Your task to perform on an android device: choose inbox layout in the gmail app Image 0: 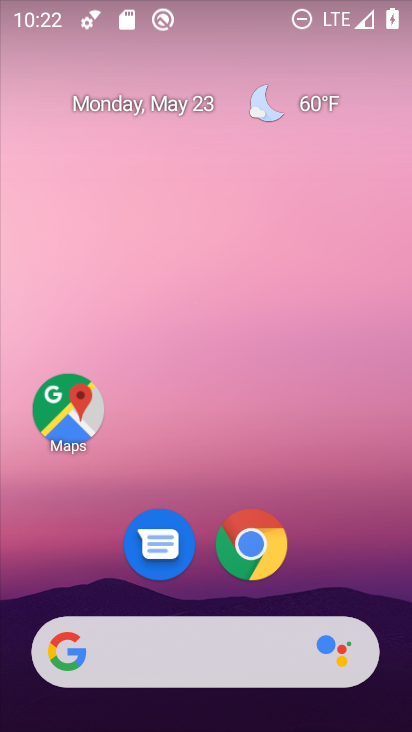
Step 0: drag from (314, 574) to (127, 322)
Your task to perform on an android device: choose inbox layout in the gmail app Image 1: 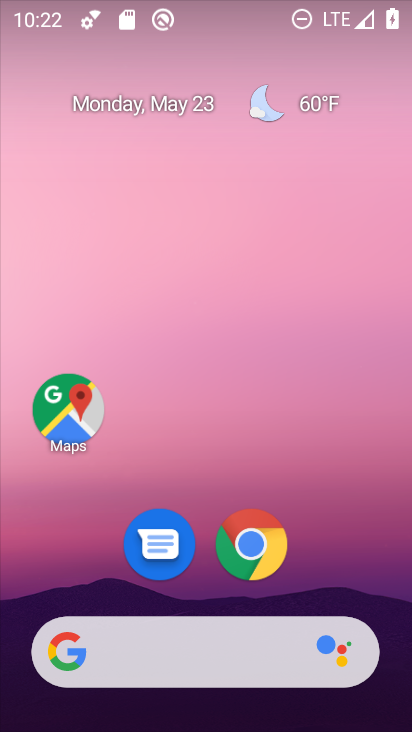
Step 1: drag from (320, 566) to (248, 309)
Your task to perform on an android device: choose inbox layout in the gmail app Image 2: 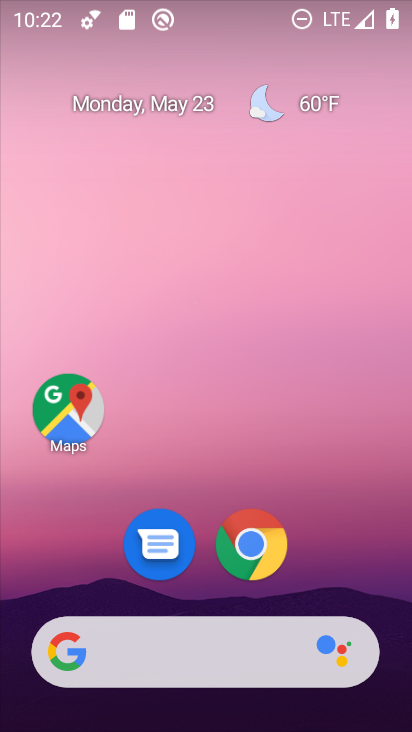
Step 2: drag from (334, 554) to (110, 56)
Your task to perform on an android device: choose inbox layout in the gmail app Image 3: 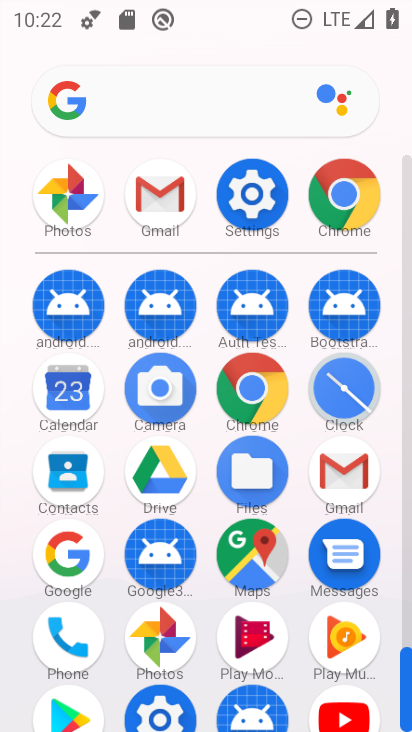
Step 3: click (173, 191)
Your task to perform on an android device: choose inbox layout in the gmail app Image 4: 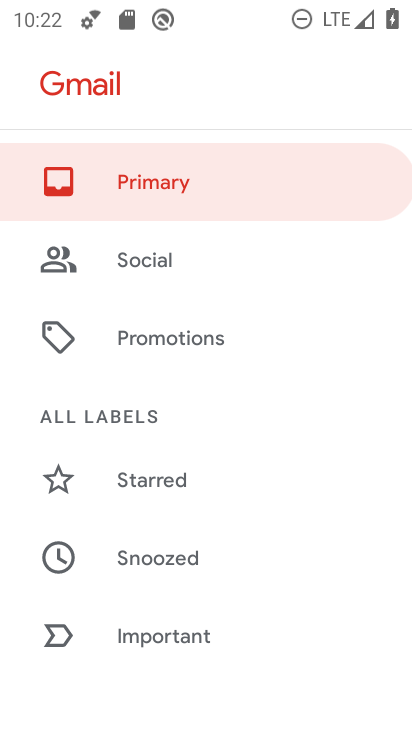
Step 4: drag from (247, 653) to (235, 133)
Your task to perform on an android device: choose inbox layout in the gmail app Image 5: 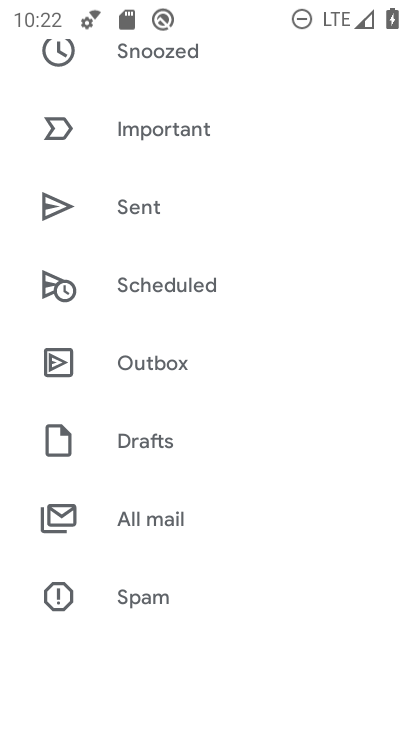
Step 5: drag from (214, 594) to (205, 314)
Your task to perform on an android device: choose inbox layout in the gmail app Image 6: 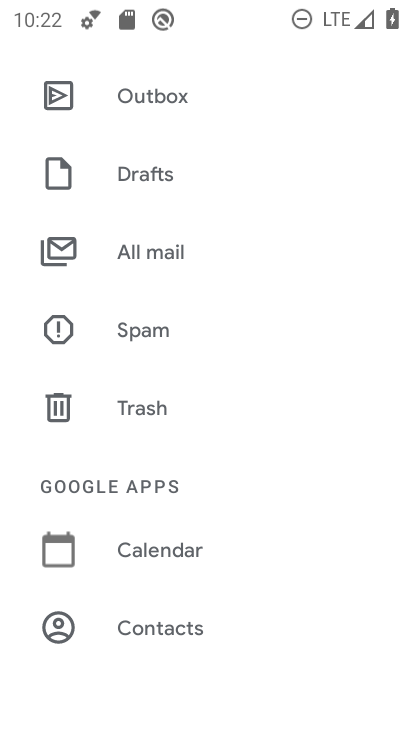
Step 6: drag from (232, 572) to (249, 196)
Your task to perform on an android device: choose inbox layout in the gmail app Image 7: 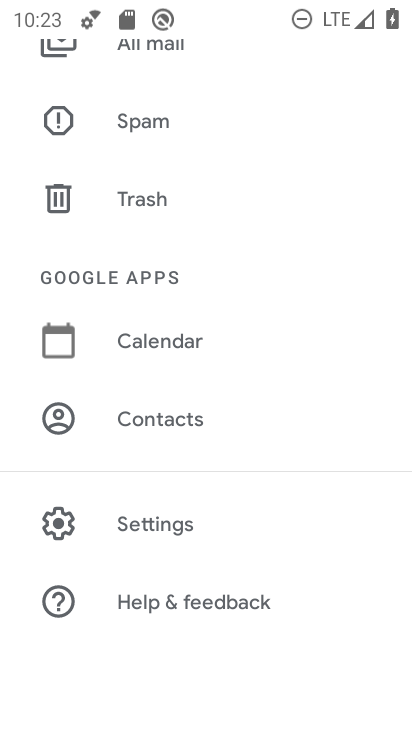
Step 7: click (164, 521)
Your task to perform on an android device: choose inbox layout in the gmail app Image 8: 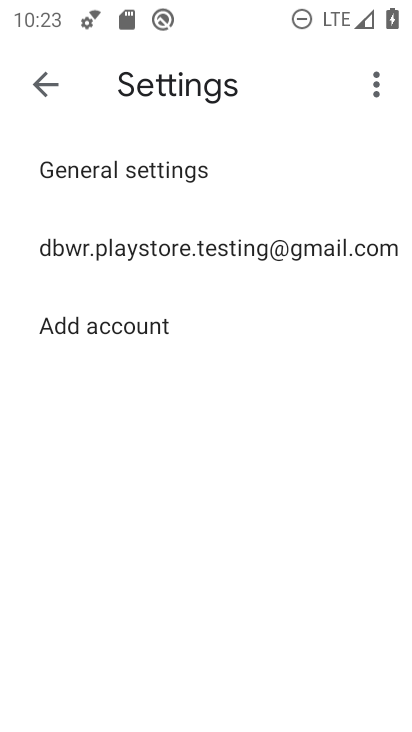
Step 8: click (109, 248)
Your task to perform on an android device: choose inbox layout in the gmail app Image 9: 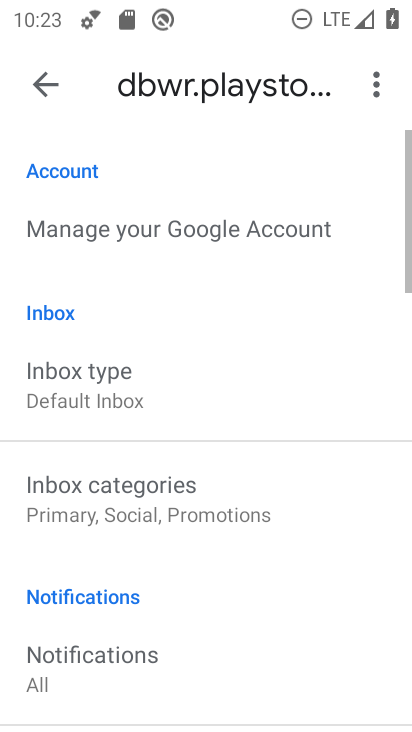
Step 9: click (94, 393)
Your task to perform on an android device: choose inbox layout in the gmail app Image 10: 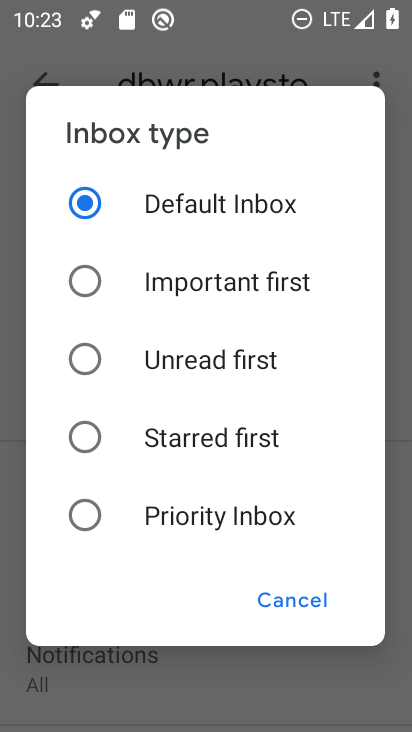
Step 10: click (84, 511)
Your task to perform on an android device: choose inbox layout in the gmail app Image 11: 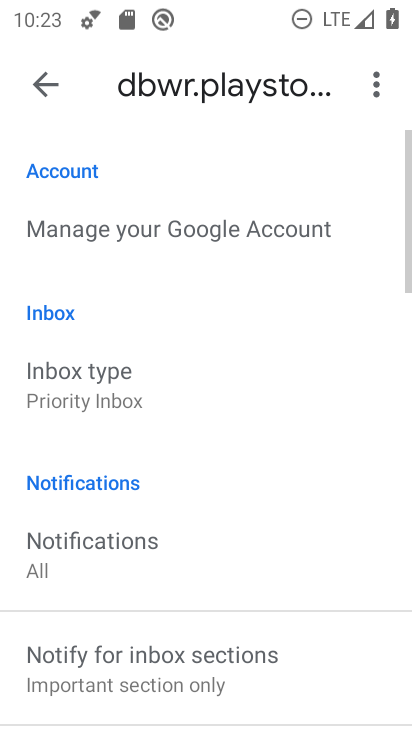
Step 11: press back button
Your task to perform on an android device: choose inbox layout in the gmail app Image 12: 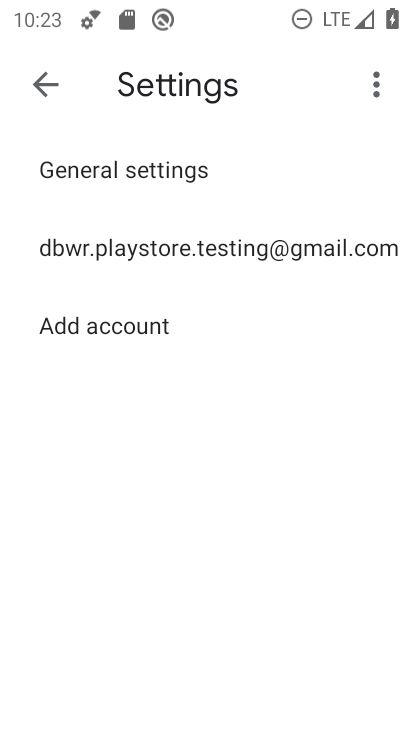
Step 12: press back button
Your task to perform on an android device: choose inbox layout in the gmail app Image 13: 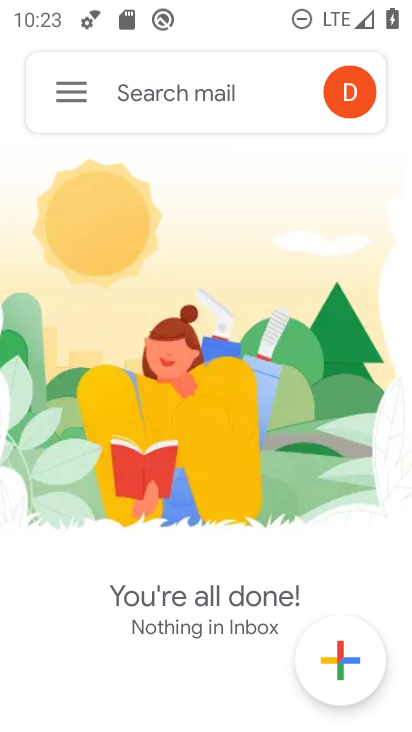
Step 13: click (61, 83)
Your task to perform on an android device: choose inbox layout in the gmail app Image 14: 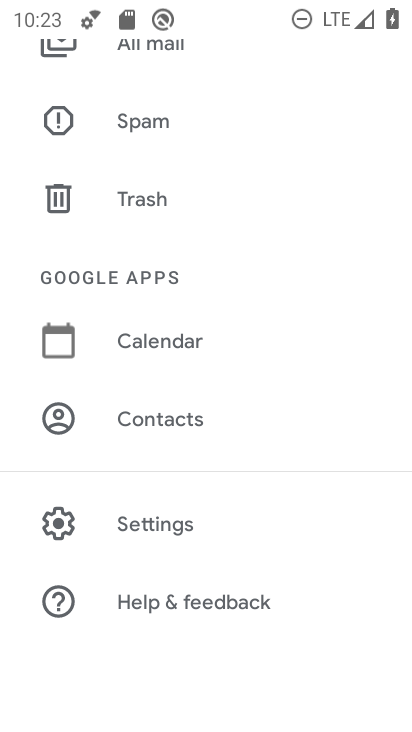
Step 14: task complete